Your task to perform on an android device: Open ESPN.com Image 0: 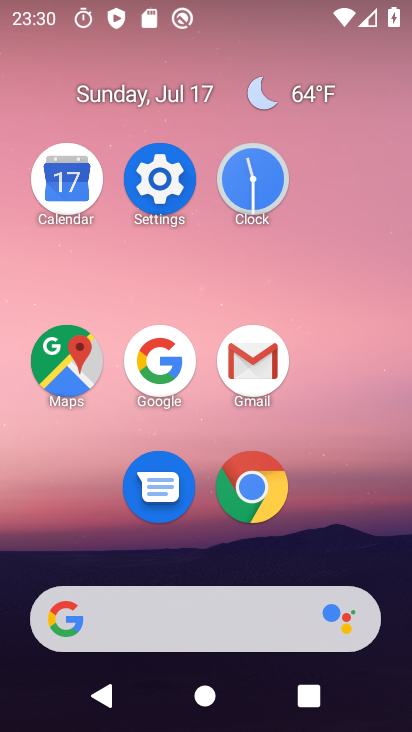
Step 0: click (238, 504)
Your task to perform on an android device: Open ESPN.com Image 1: 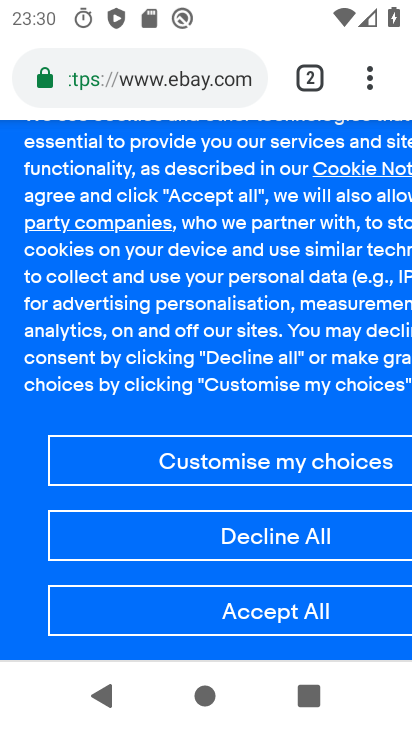
Step 1: click (302, 81)
Your task to perform on an android device: Open ESPN.com Image 2: 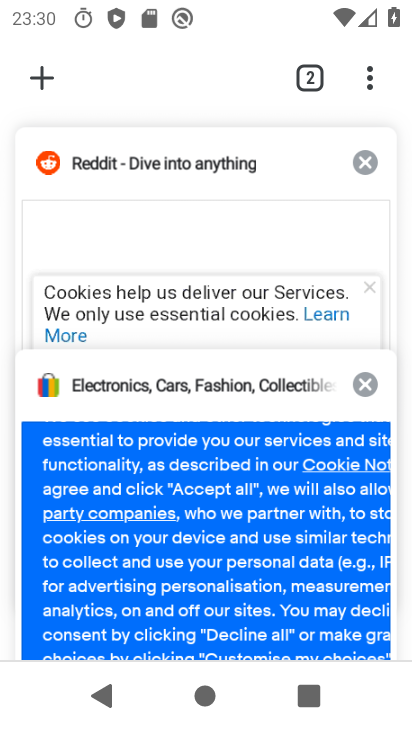
Step 2: click (41, 74)
Your task to perform on an android device: Open ESPN.com Image 3: 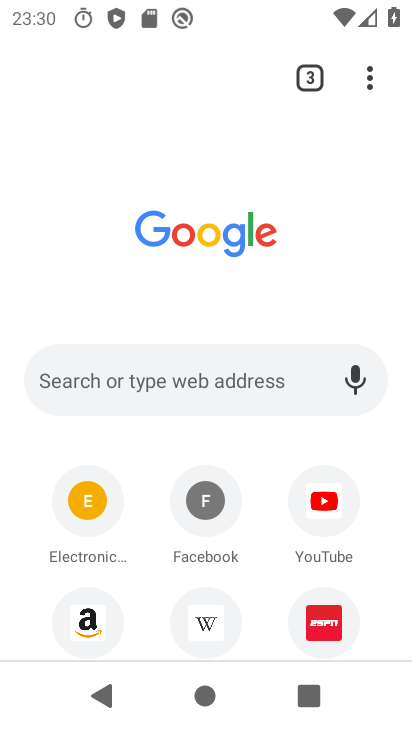
Step 3: click (326, 616)
Your task to perform on an android device: Open ESPN.com Image 4: 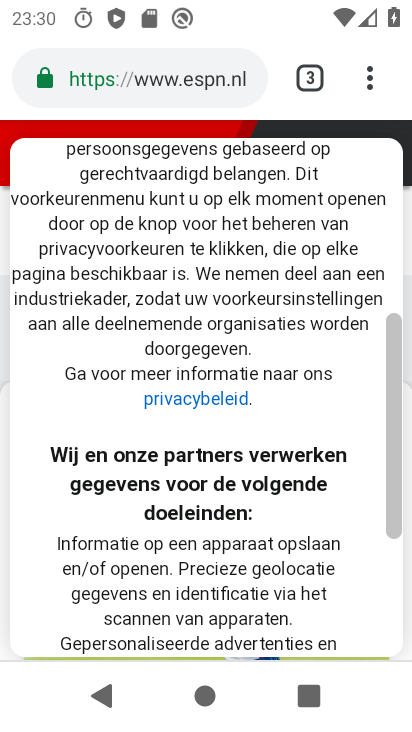
Step 4: task complete